Your task to perform on an android device: Go to battery settings Image 0: 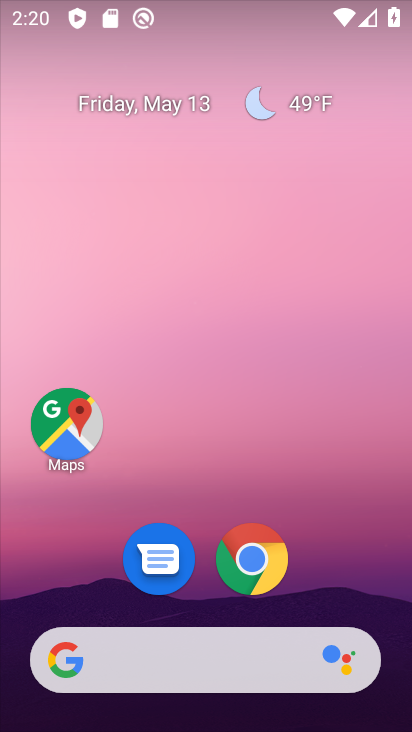
Step 0: drag from (394, 641) to (334, 173)
Your task to perform on an android device: Go to battery settings Image 1: 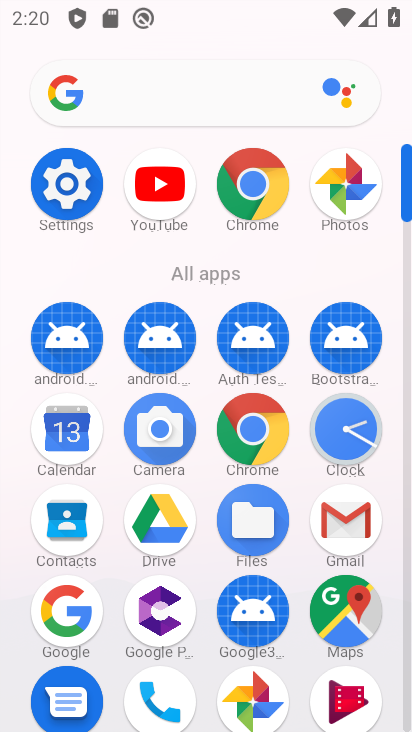
Step 1: click (410, 715)
Your task to perform on an android device: Go to battery settings Image 2: 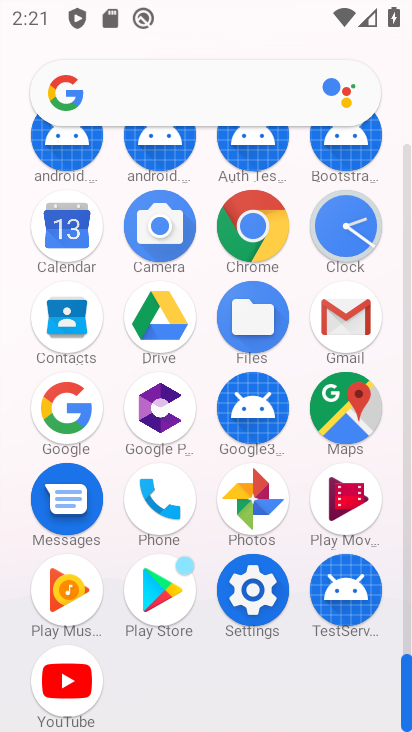
Step 2: click (253, 589)
Your task to perform on an android device: Go to battery settings Image 3: 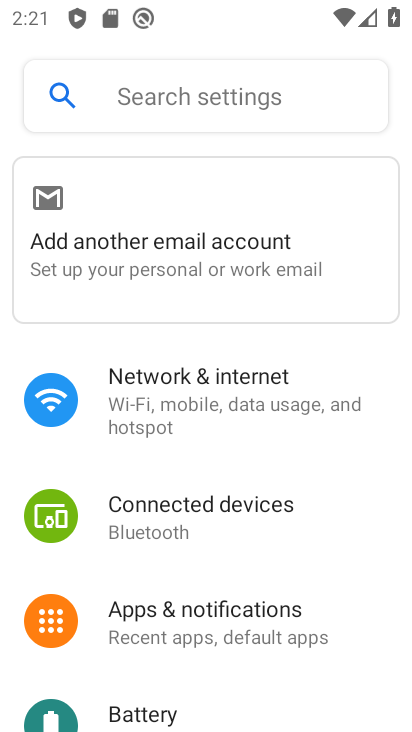
Step 3: drag from (353, 677) to (331, 217)
Your task to perform on an android device: Go to battery settings Image 4: 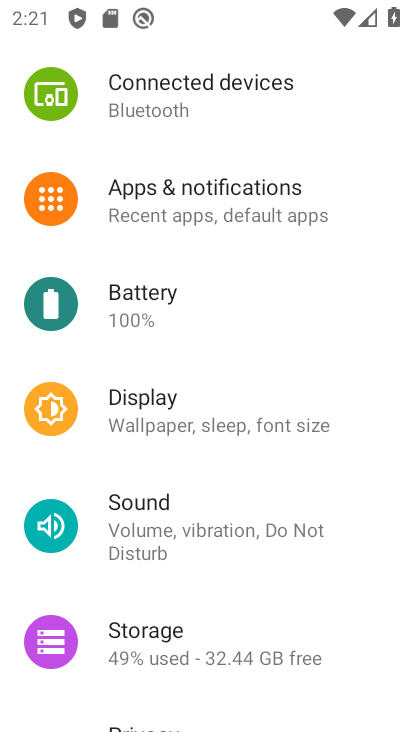
Step 4: click (142, 299)
Your task to perform on an android device: Go to battery settings Image 5: 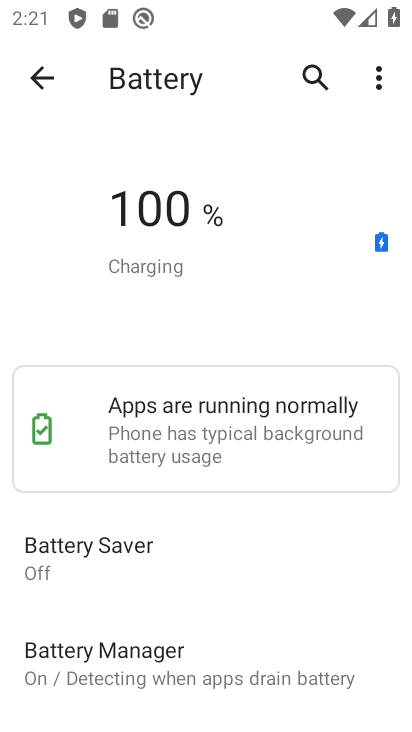
Step 5: task complete